Your task to perform on an android device: turn off sleep mode Image 0: 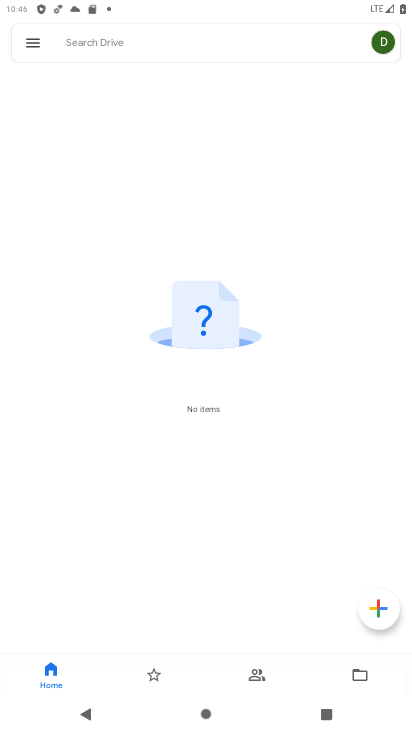
Step 0: press home button
Your task to perform on an android device: turn off sleep mode Image 1: 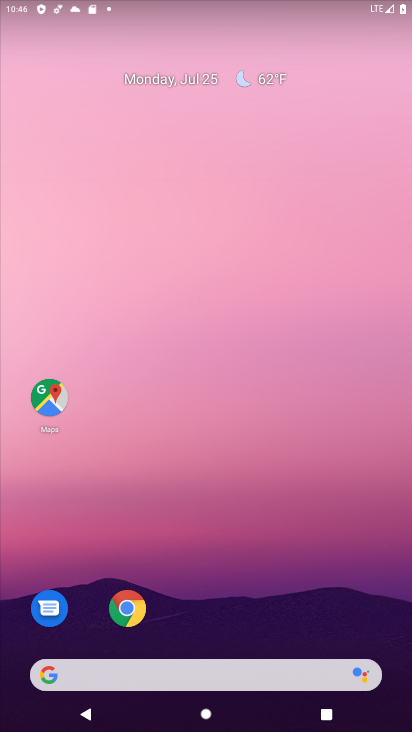
Step 1: drag from (190, 559) to (177, 5)
Your task to perform on an android device: turn off sleep mode Image 2: 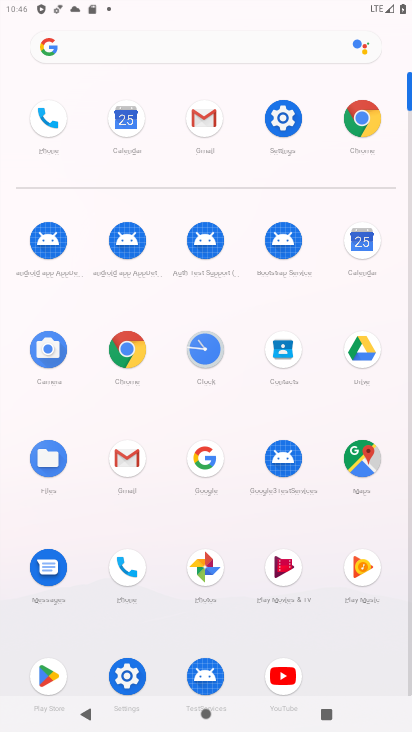
Step 2: click (276, 117)
Your task to perform on an android device: turn off sleep mode Image 3: 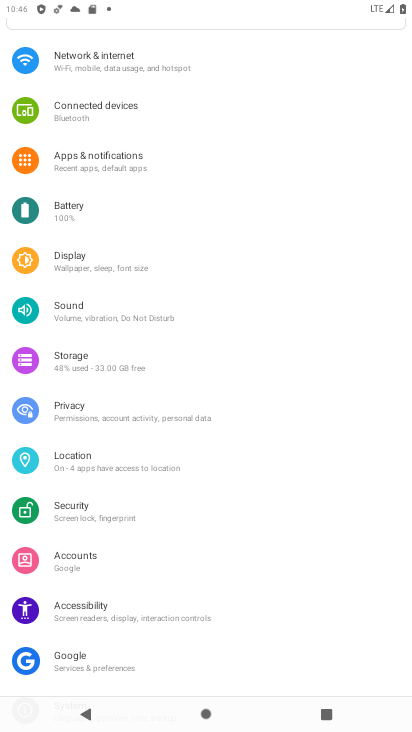
Step 3: drag from (214, 92) to (210, 535)
Your task to perform on an android device: turn off sleep mode Image 4: 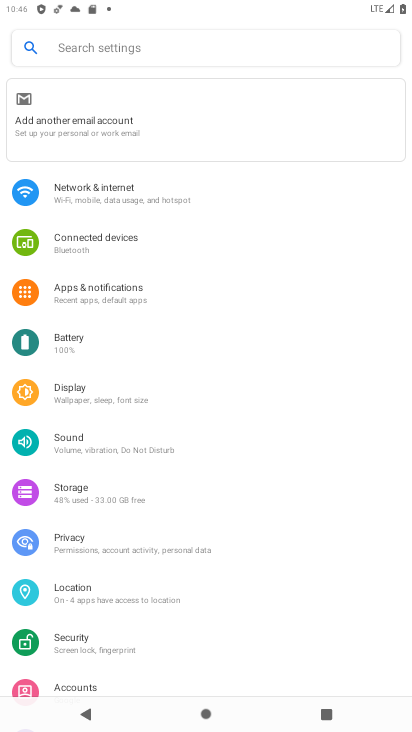
Step 4: click (214, 47)
Your task to perform on an android device: turn off sleep mode Image 5: 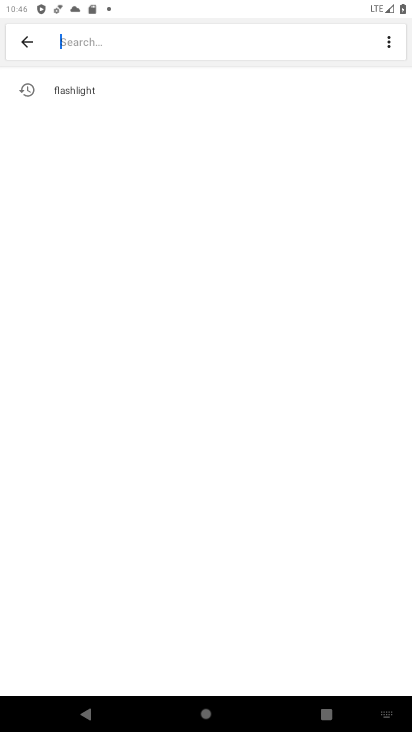
Step 5: type "sleep mode"
Your task to perform on an android device: turn off sleep mode Image 6: 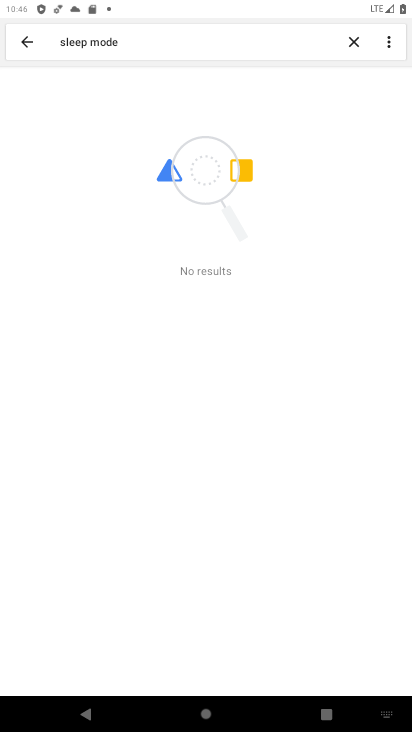
Step 6: task complete